Your task to perform on an android device: change the upload size in google photos Image 0: 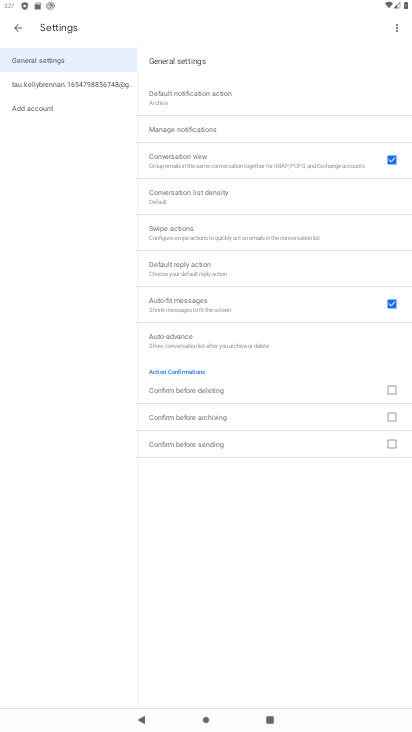
Step 0: press home button
Your task to perform on an android device: change the upload size in google photos Image 1: 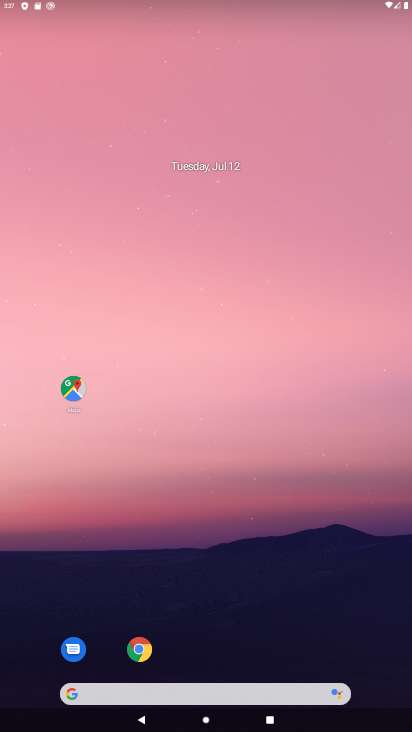
Step 1: drag from (197, 679) to (230, 256)
Your task to perform on an android device: change the upload size in google photos Image 2: 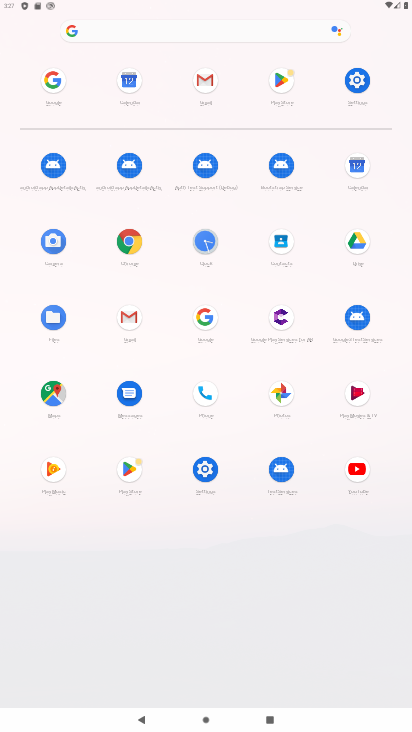
Step 2: click (286, 385)
Your task to perform on an android device: change the upload size in google photos Image 3: 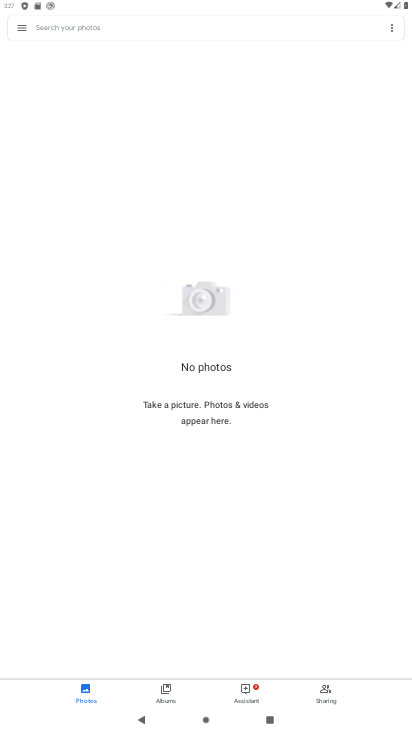
Step 3: click (28, 25)
Your task to perform on an android device: change the upload size in google photos Image 4: 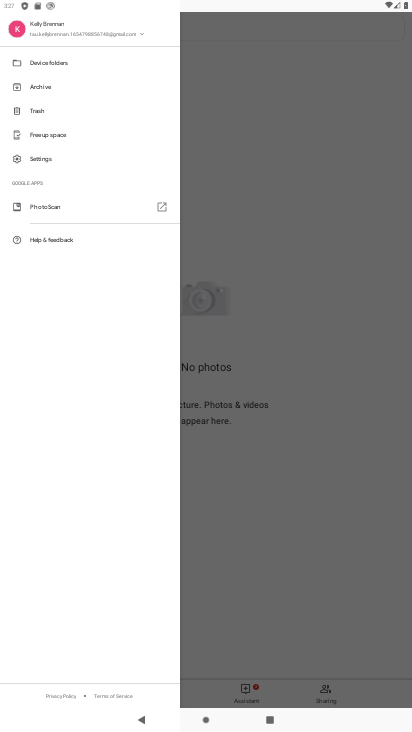
Step 4: click (33, 154)
Your task to perform on an android device: change the upload size in google photos Image 5: 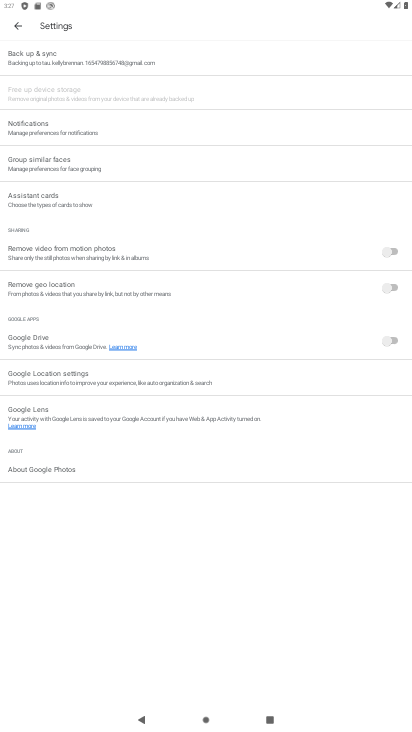
Step 5: click (41, 61)
Your task to perform on an android device: change the upload size in google photos Image 6: 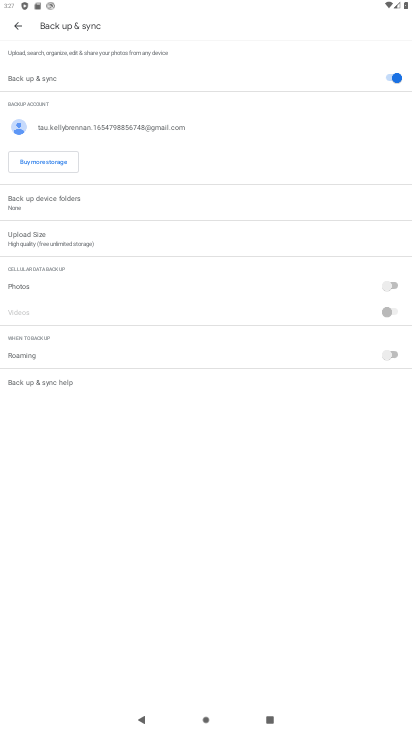
Step 6: click (14, 230)
Your task to perform on an android device: change the upload size in google photos Image 7: 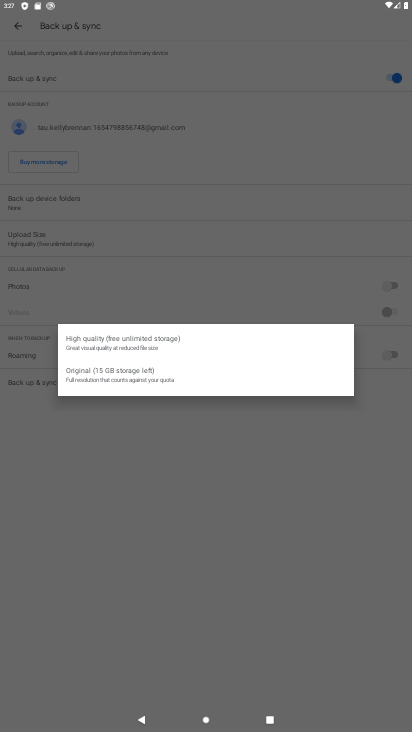
Step 7: click (126, 371)
Your task to perform on an android device: change the upload size in google photos Image 8: 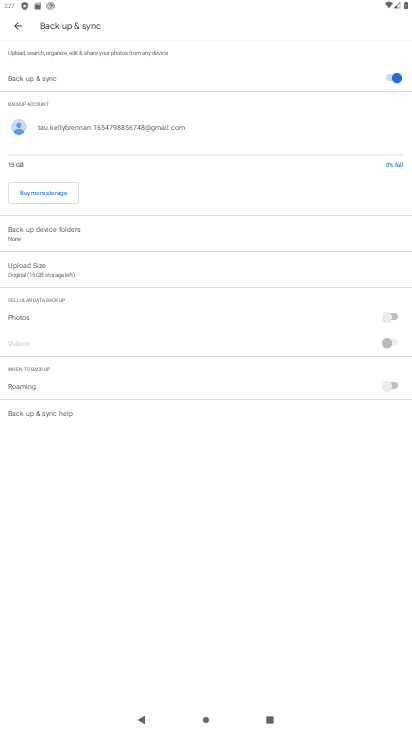
Step 8: task complete